Your task to perform on an android device: Open Maps and search for coffee Image 0: 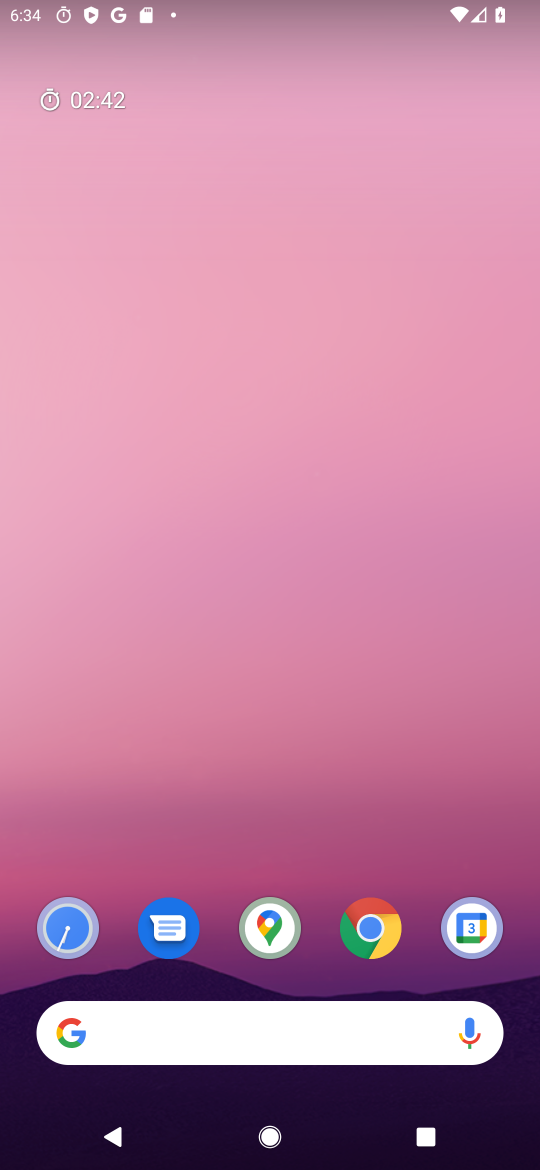
Step 0: press home button
Your task to perform on an android device: Open Maps and search for coffee Image 1: 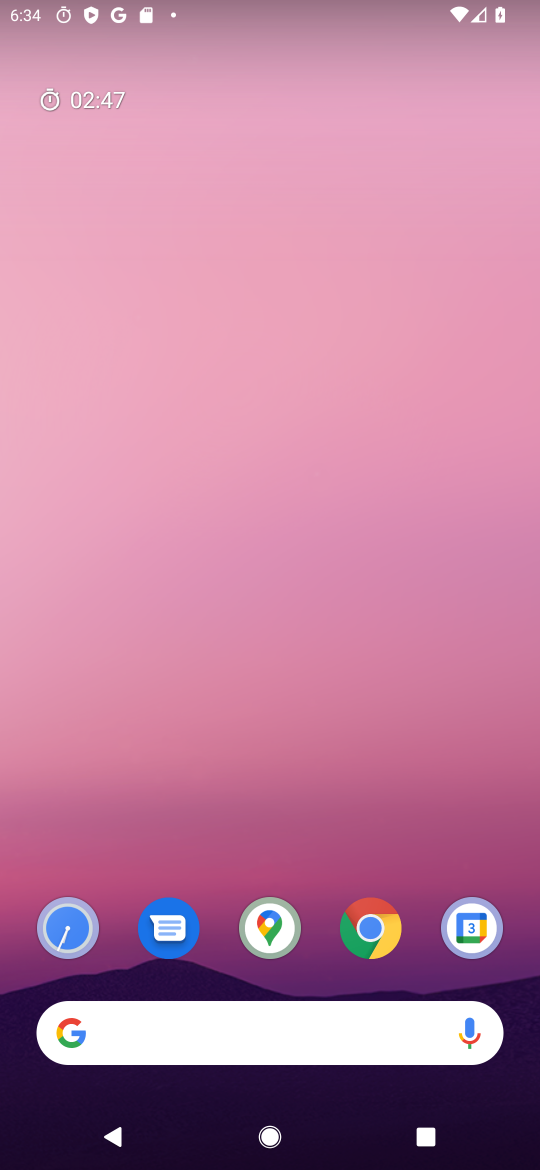
Step 1: drag from (330, 855) to (349, 348)
Your task to perform on an android device: Open Maps and search for coffee Image 2: 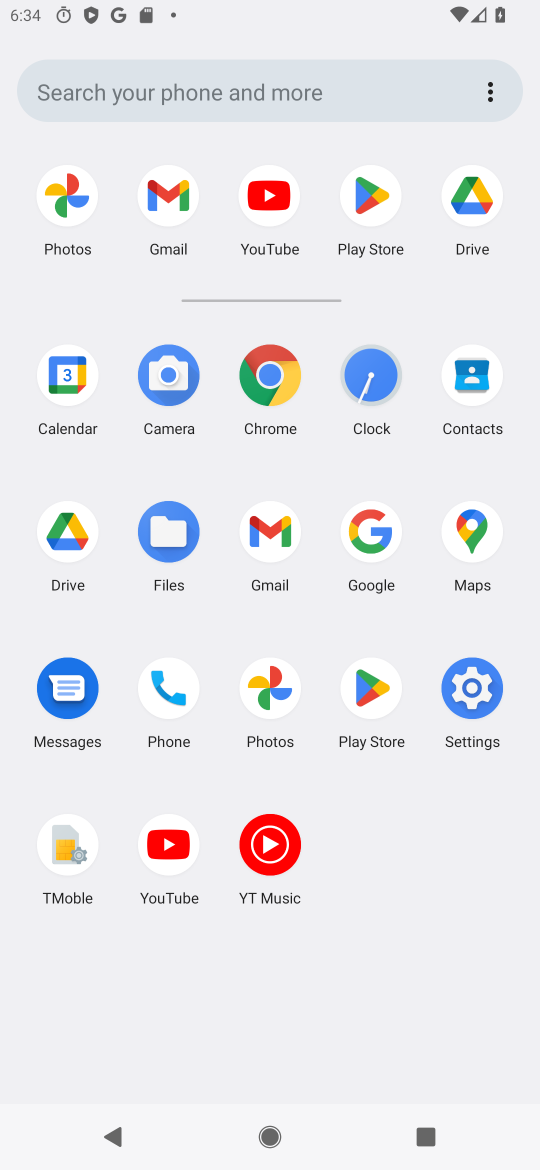
Step 2: click (469, 541)
Your task to perform on an android device: Open Maps and search for coffee Image 3: 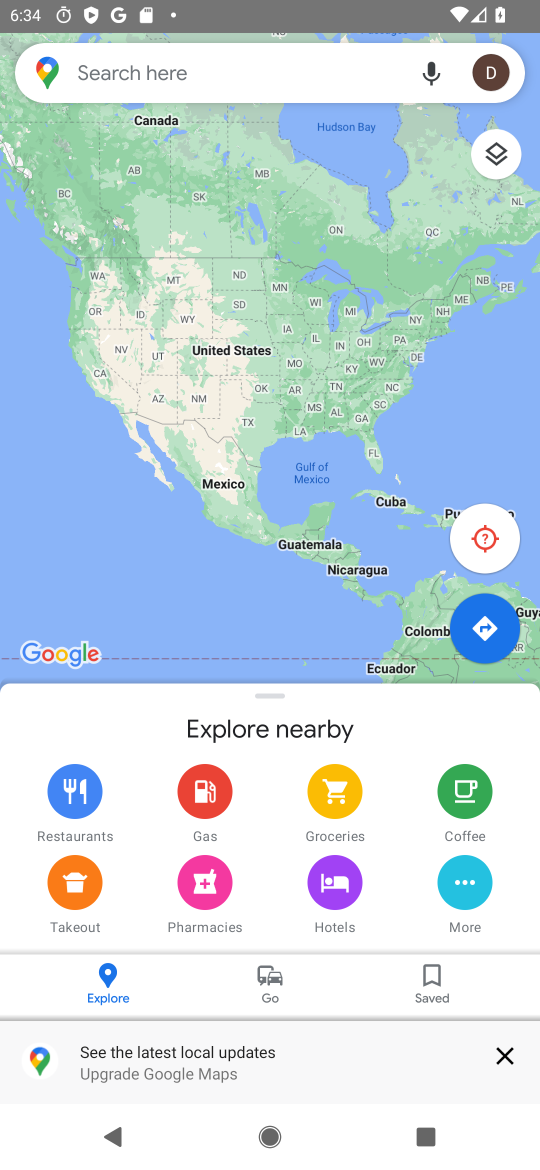
Step 3: click (258, 67)
Your task to perform on an android device: Open Maps and search for coffee Image 4: 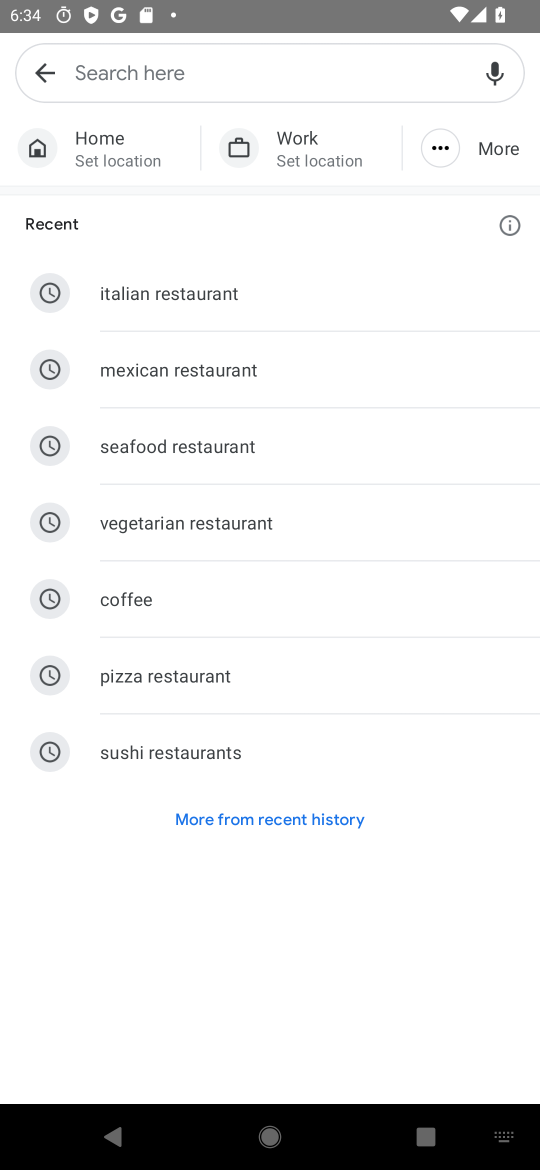
Step 4: type "coffee"
Your task to perform on an android device: Open Maps and search for coffee Image 5: 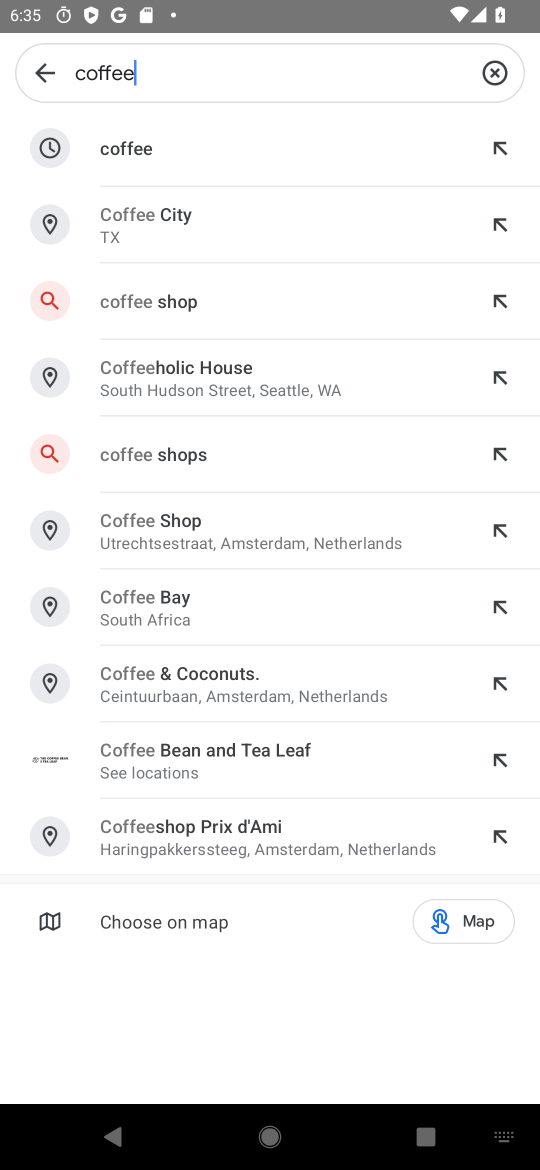
Step 5: click (215, 144)
Your task to perform on an android device: Open Maps and search for coffee Image 6: 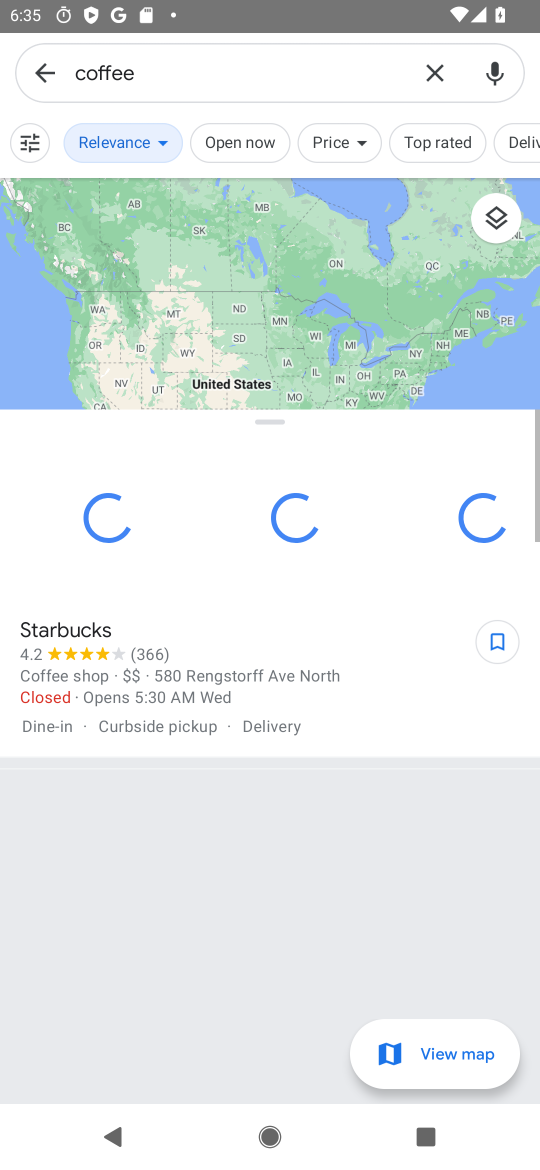
Step 6: click (121, 156)
Your task to perform on an android device: Open Maps and search for coffee Image 7: 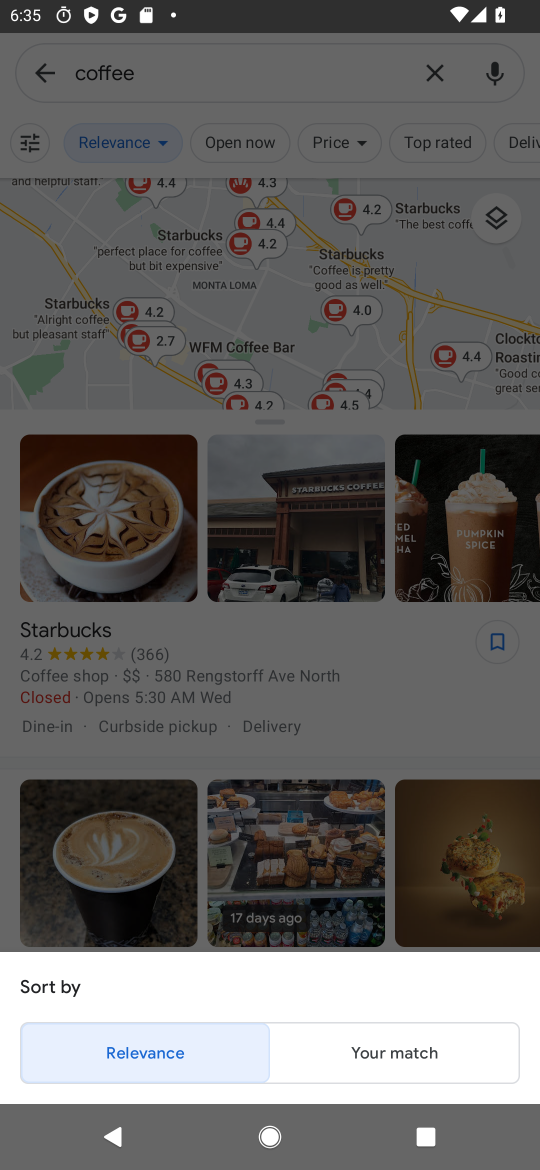
Step 7: task complete